Your task to perform on an android device: set an alarm Image 0: 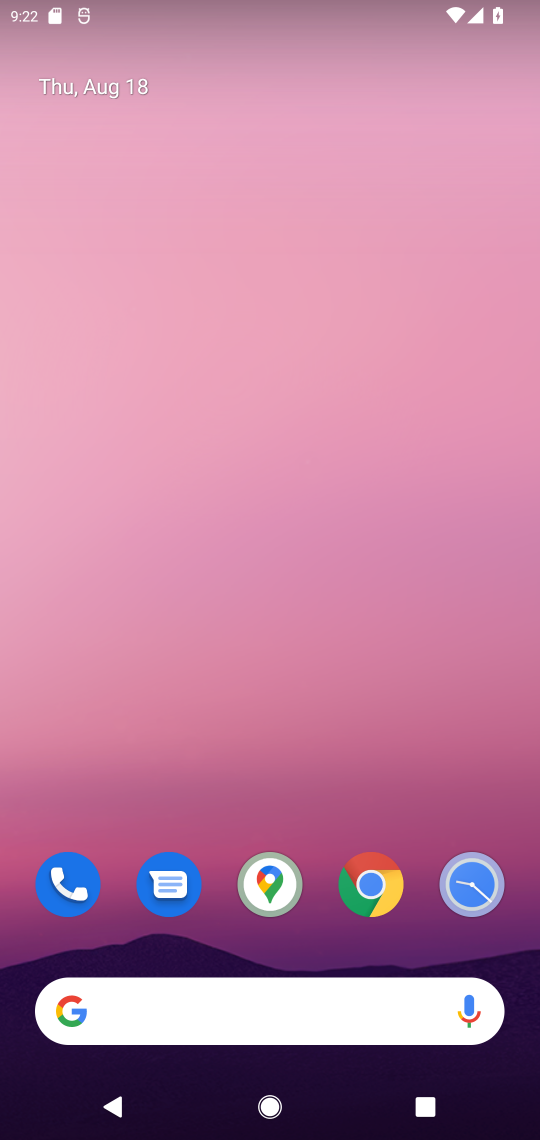
Step 0: click (479, 878)
Your task to perform on an android device: set an alarm Image 1: 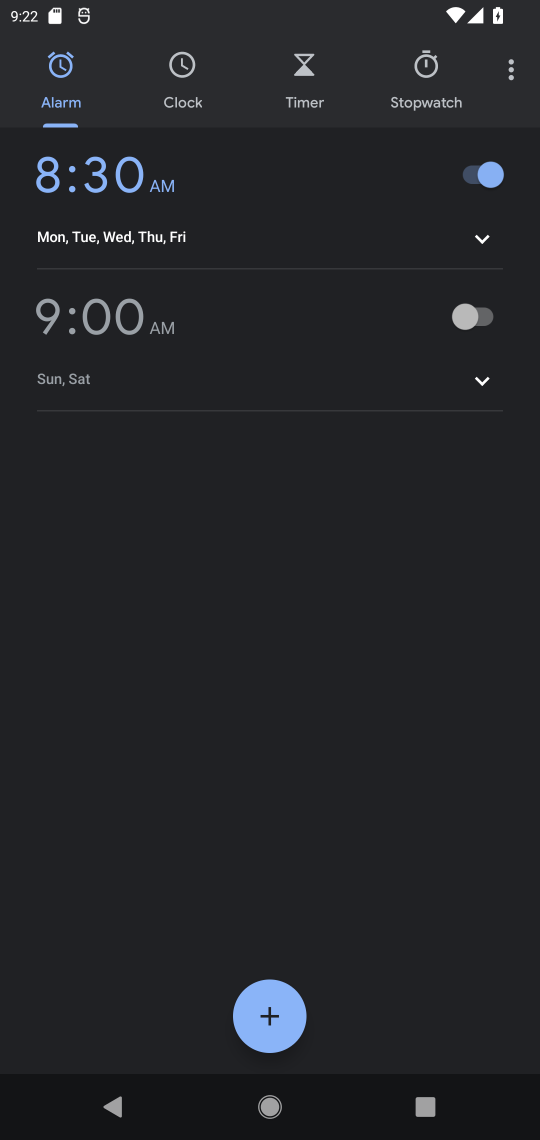
Step 1: task complete